Your task to perform on an android device: see tabs open on other devices in the chrome app Image 0: 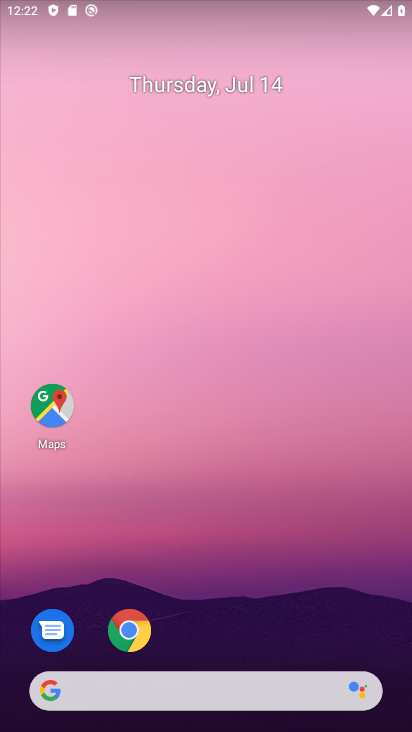
Step 0: drag from (210, 659) to (239, 372)
Your task to perform on an android device: see tabs open on other devices in the chrome app Image 1: 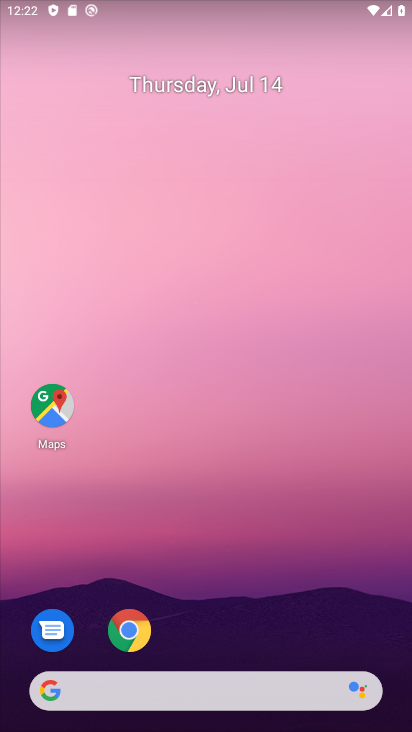
Step 1: drag from (252, 649) to (250, 280)
Your task to perform on an android device: see tabs open on other devices in the chrome app Image 2: 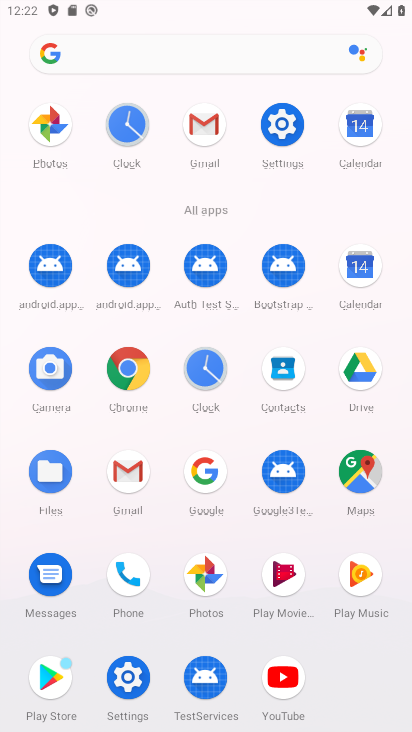
Step 2: click (135, 366)
Your task to perform on an android device: see tabs open on other devices in the chrome app Image 3: 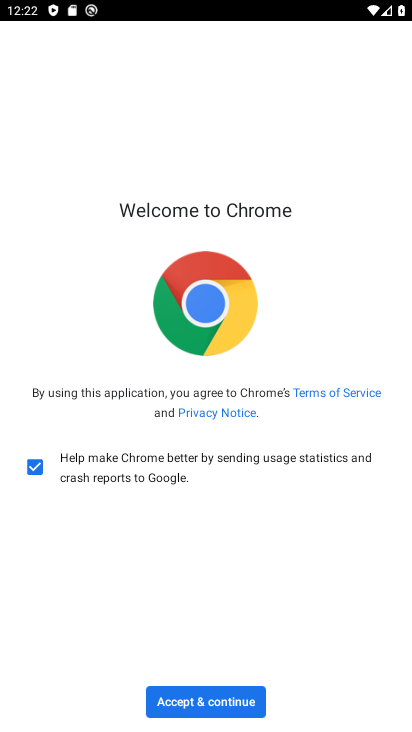
Step 3: click (196, 707)
Your task to perform on an android device: see tabs open on other devices in the chrome app Image 4: 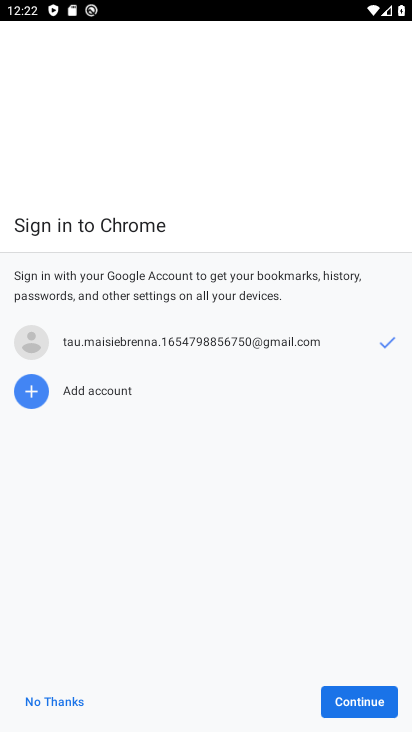
Step 4: click (349, 705)
Your task to perform on an android device: see tabs open on other devices in the chrome app Image 5: 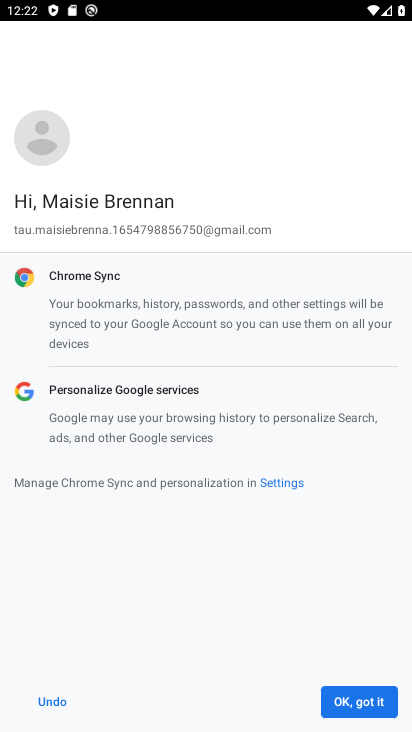
Step 5: click (349, 705)
Your task to perform on an android device: see tabs open on other devices in the chrome app Image 6: 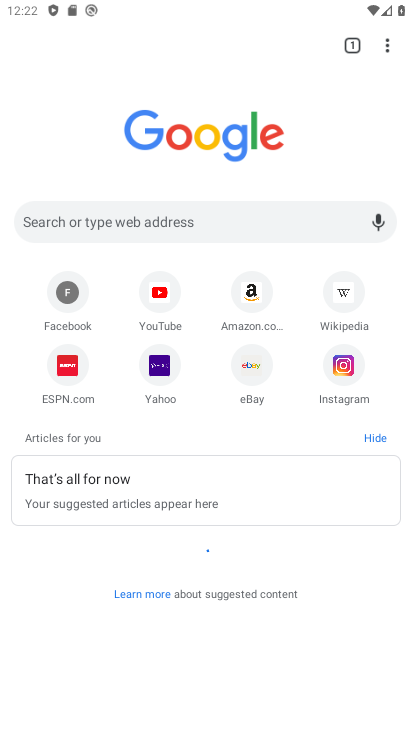
Step 6: click (357, 40)
Your task to perform on an android device: see tabs open on other devices in the chrome app Image 7: 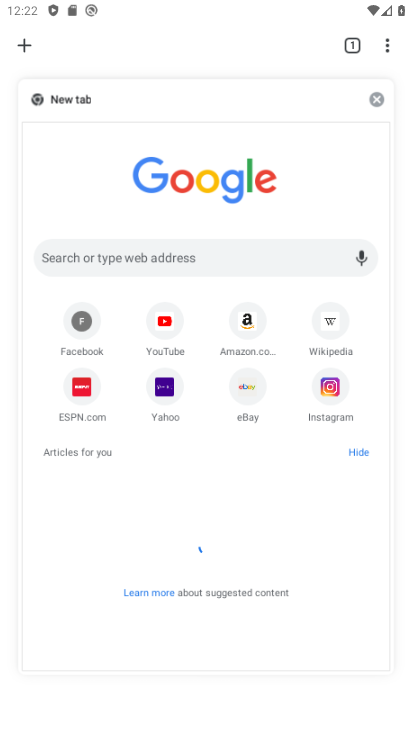
Step 7: task complete